Your task to perform on an android device: move a message to another label in the gmail app Image 0: 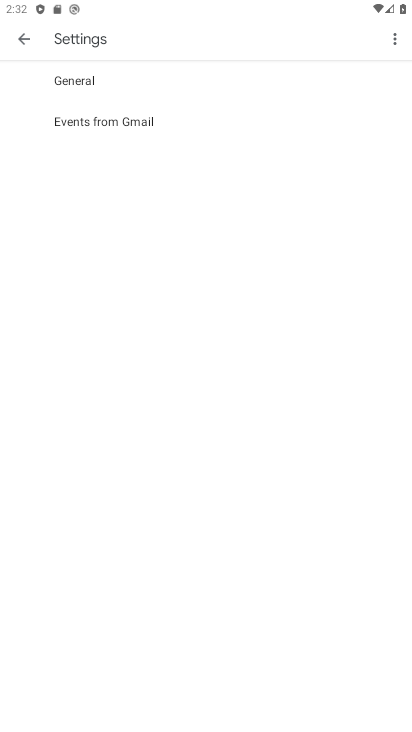
Step 0: press home button
Your task to perform on an android device: move a message to another label in the gmail app Image 1: 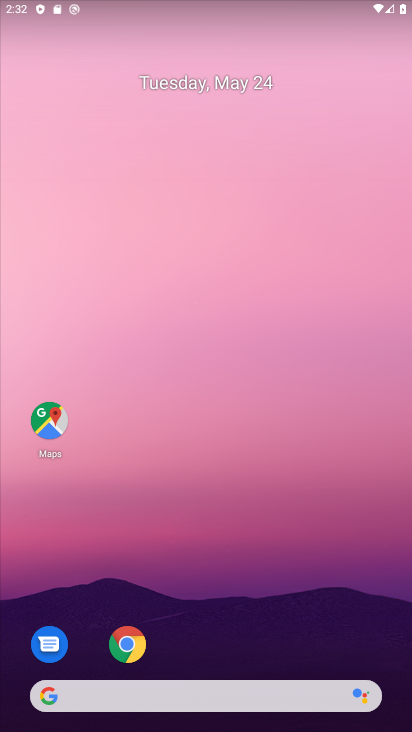
Step 1: drag from (322, 644) to (303, 35)
Your task to perform on an android device: move a message to another label in the gmail app Image 2: 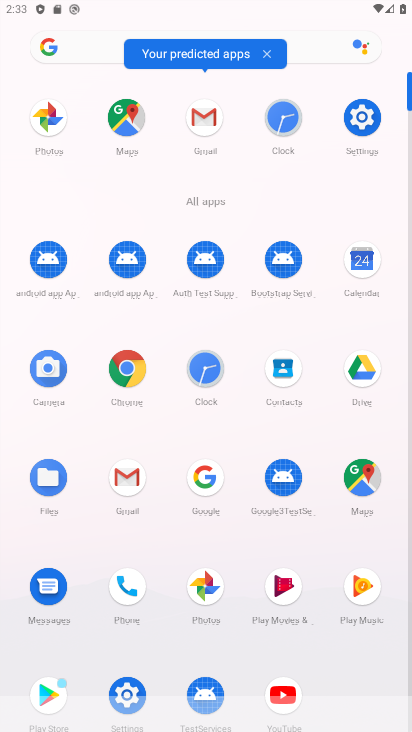
Step 2: click (123, 468)
Your task to perform on an android device: move a message to another label in the gmail app Image 3: 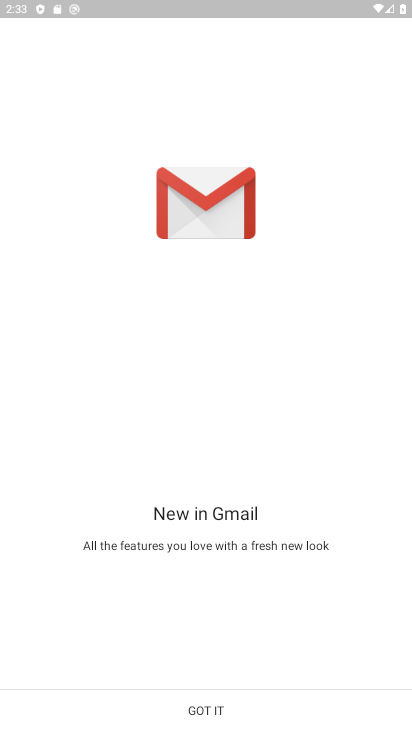
Step 3: click (211, 722)
Your task to perform on an android device: move a message to another label in the gmail app Image 4: 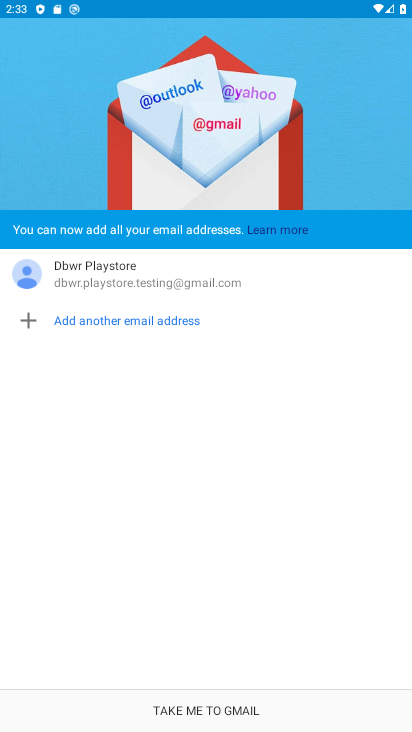
Step 4: click (201, 709)
Your task to perform on an android device: move a message to another label in the gmail app Image 5: 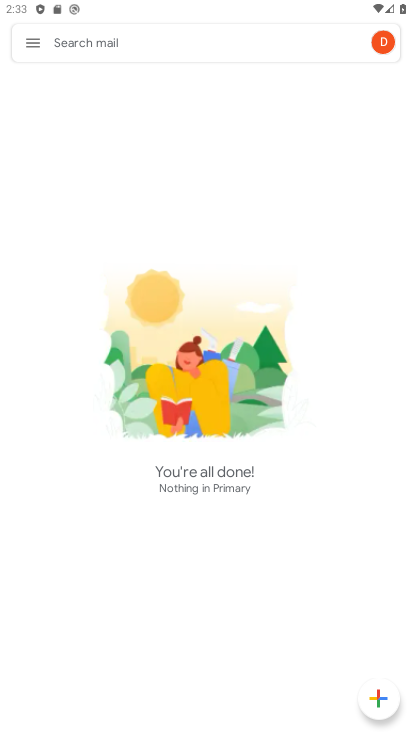
Step 5: click (32, 40)
Your task to perform on an android device: move a message to another label in the gmail app Image 6: 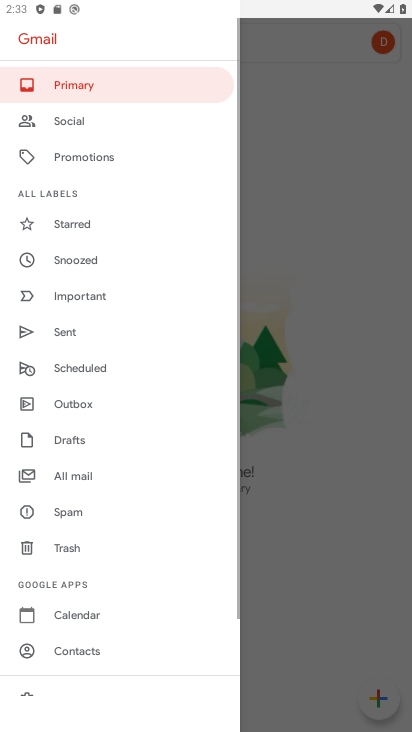
Step 6: click (74, 483)
Your task to perform on an android device: move a message to another label in the gmail app Image 7: 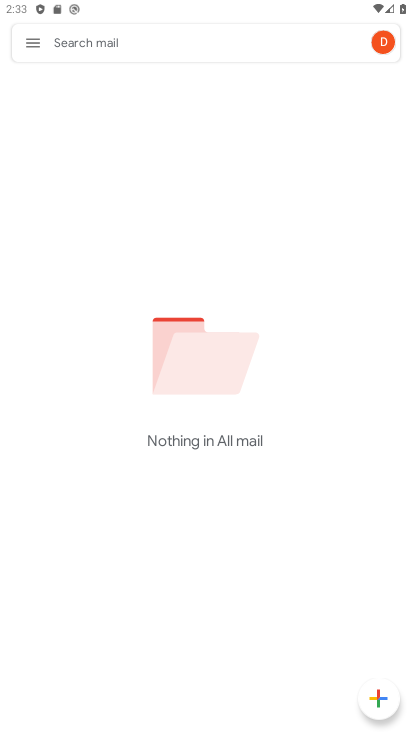
Step 7: task complete